Your task to perform on an android device: Go to wifi settings Image 0: 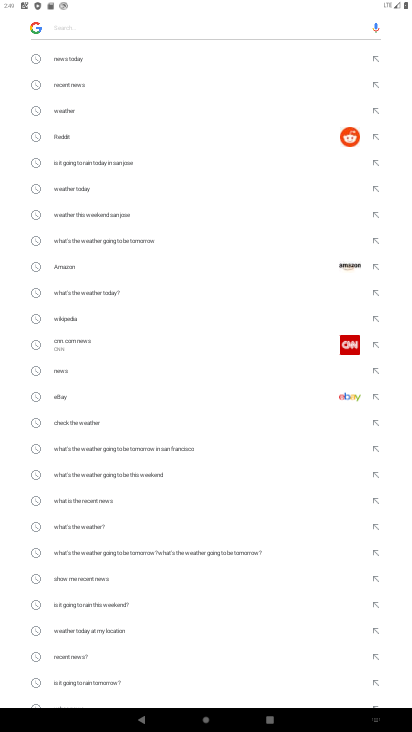
Step 0: drag from (196, 507) to (301, 106)
Your task to perform on an android device: Go to wifi settings Image 1: 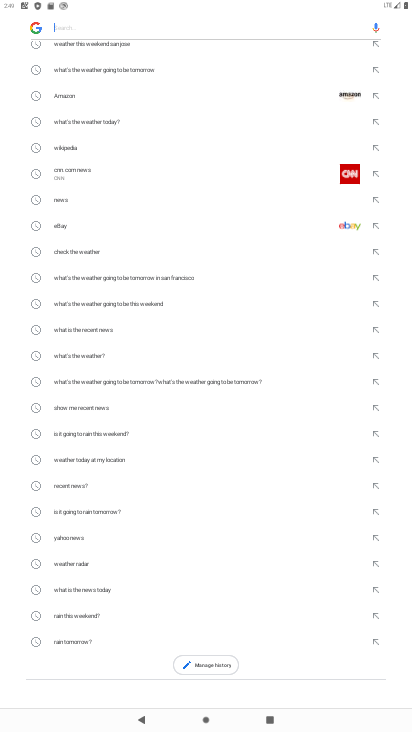
Step 1: drag from (201, 164) to (389, 702)
Your task to perform on an android device: Go to wifi settings Image 2: 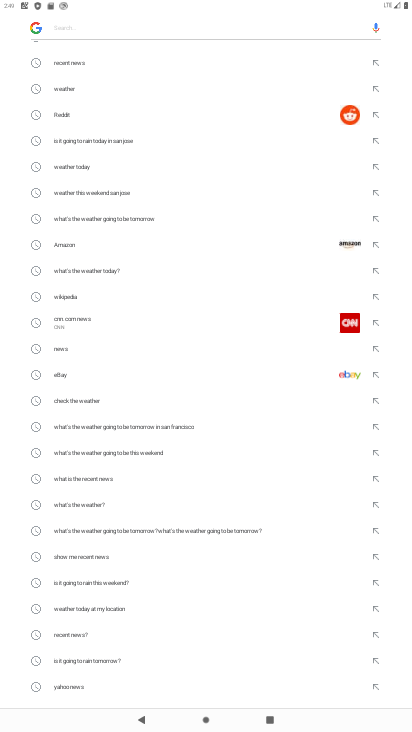
Step 2: press home button
Your task to perform on an android device: Go to wifi settings Image 3: 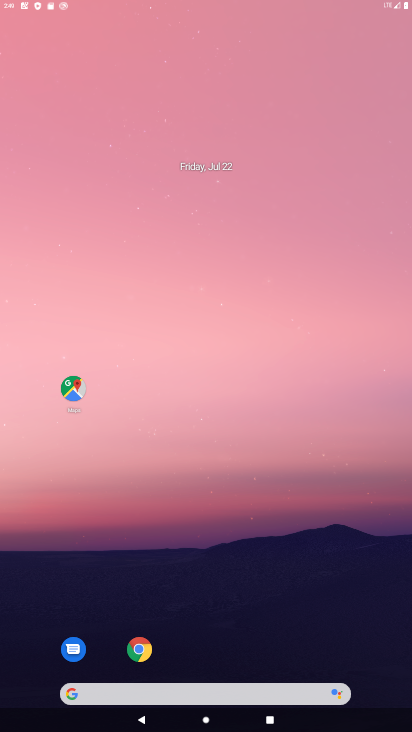
Step 3: drag from (178, 610) to (274, 2)
Your task to perform on an android device: Go to wifi settings Image 4: 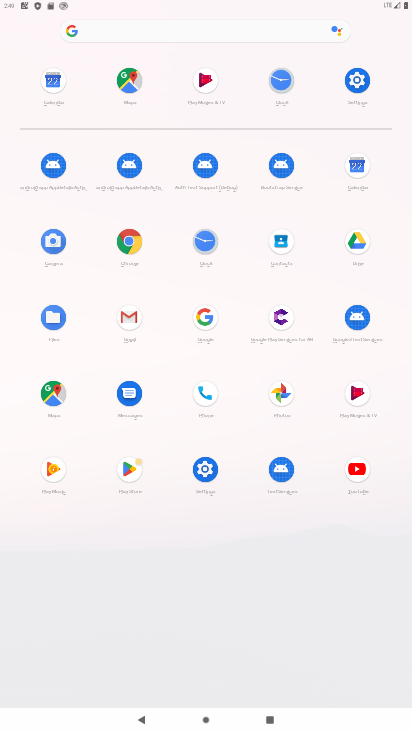
Step 4: click (358, 74)
Your task to perform on an android device: Go to wifi settings Image 5: 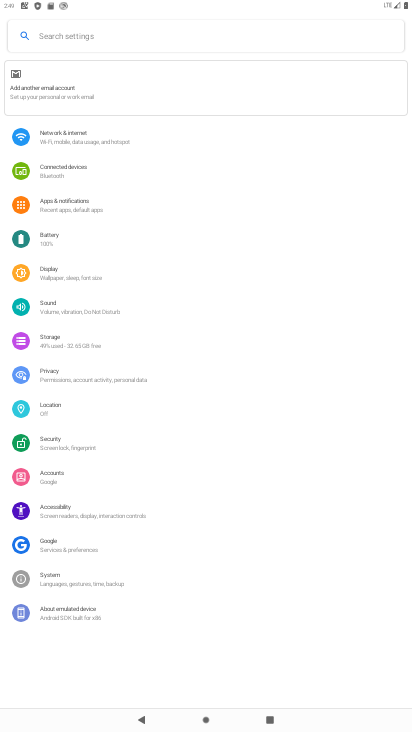
Step 5: click (79, 141)
Your task to perform on an android device: Go to wifi settings Image 6: 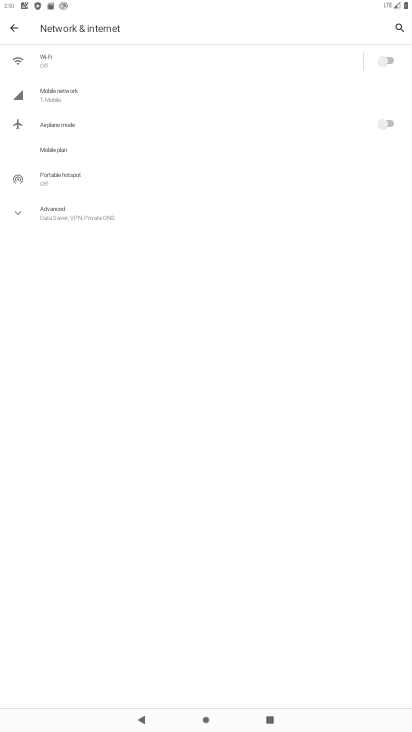
Step 6: drag from (230, 364) to (232, 679)
Your task to perform on an android device: Go to wifi settings Image 7: 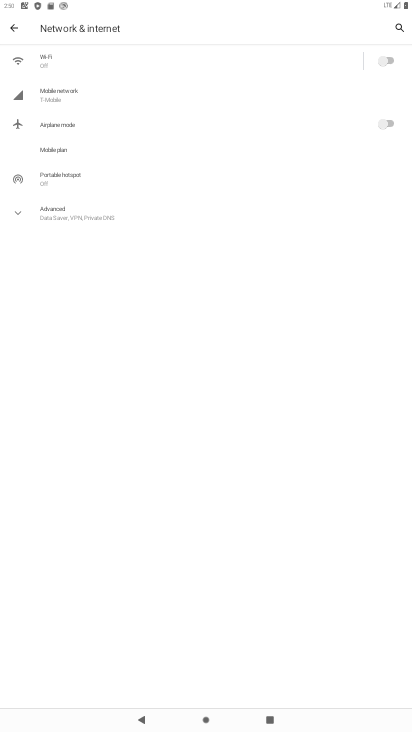
Step 7: click (77, 67)
Your task to perform on an android device: Go to wifi settings Image 8: 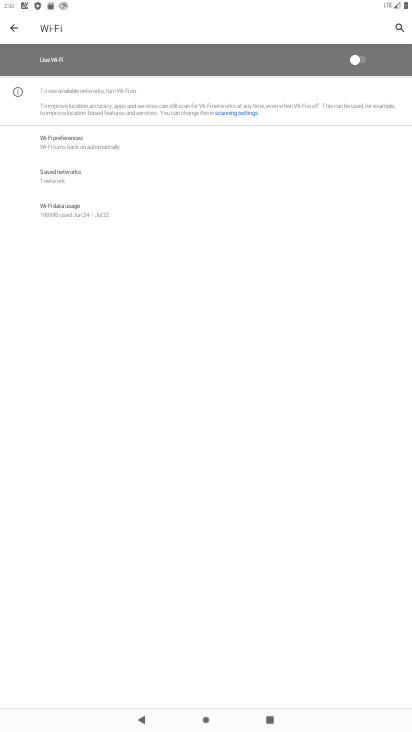
Step 8: drag from (280, 446) to (303, 89)
Your task to perform on an android device: Go to wifi settings Image 9: 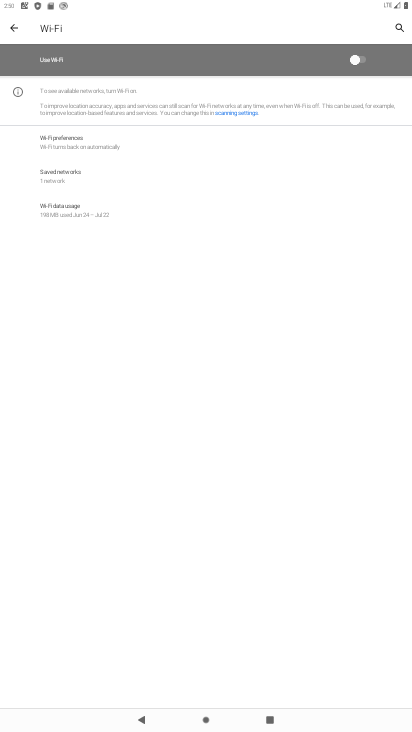
Step 9: click (264, 208)
Your task to perform on an android device: Go to wifi settings Image 10: 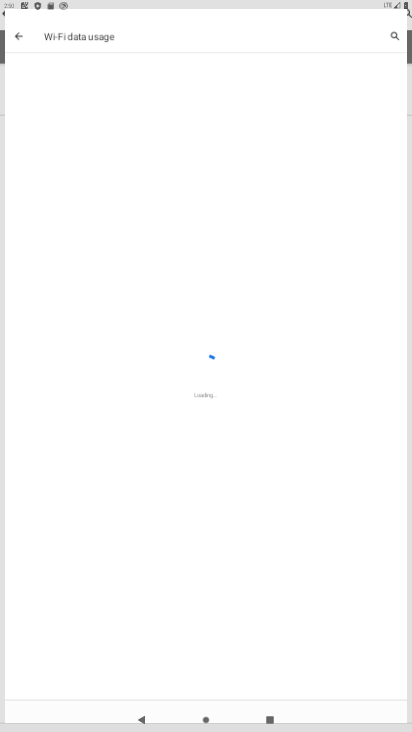
Step 10: task complete